Your task to perform on an android device: Open Youtube and go to "Your channel" Image 0: 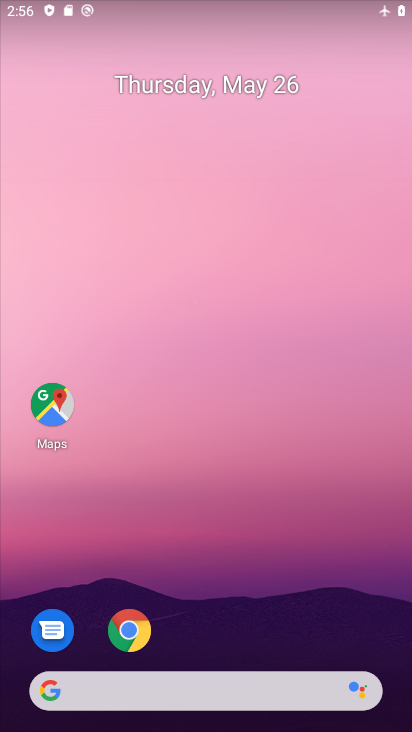
Step 0: drag from (235, 585) to (259, 244)
Your task to perform on an android device: Open Youtube and go to "Your channel" Image 1: 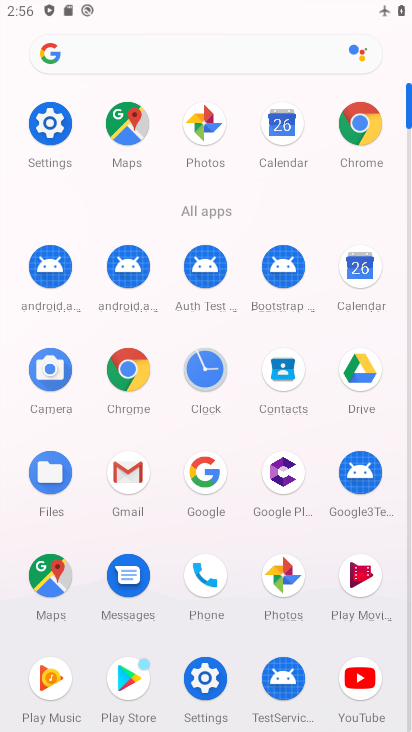
Step 1: click (361, 677)
Your task to perform on an android device: Open Youtube and go to "Your channel" Image 2: 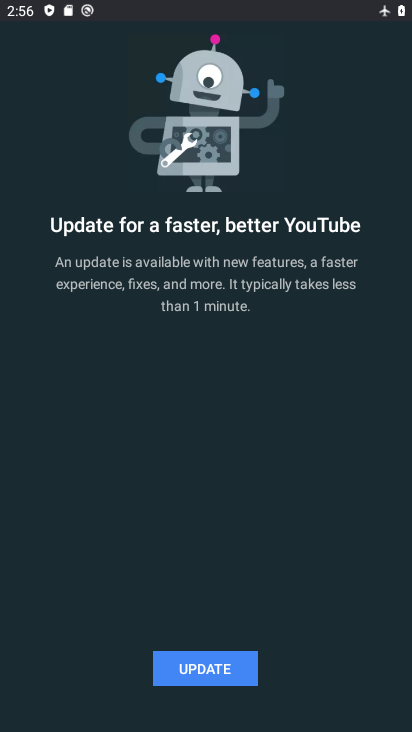
Step 2: click (239, 665)
Your task to perform on an android device: Open Youtube and go to "Your channel" Image 3: 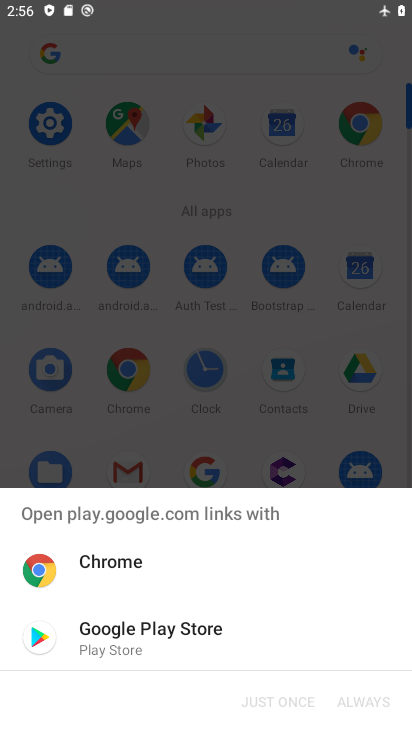
Step 3: click (159, 636)
Your task to perform on an android device: Open Youtube and go to "Your channel" Image 4: 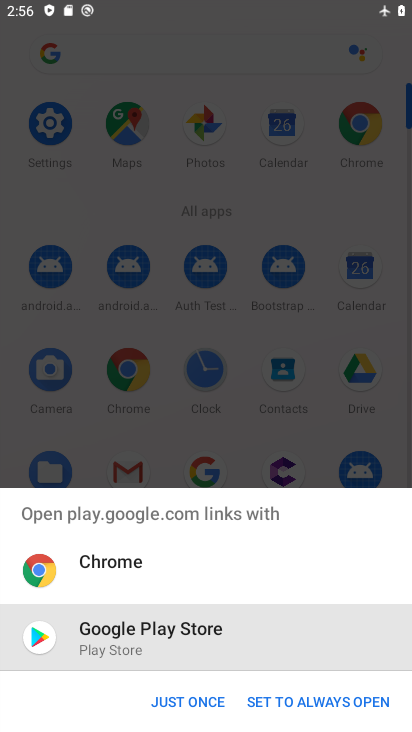
Step 4: click (185, 702)
Your task to perform on an android device: Open Youtube and go to "Your channel" Image 5: 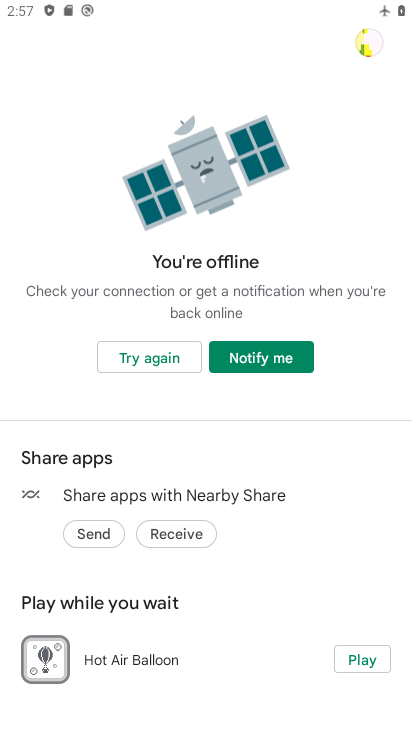
Step 5: click (162, 352)
Your task to perform on an android device: Open Youtube and go to "Your channel" Image 6: 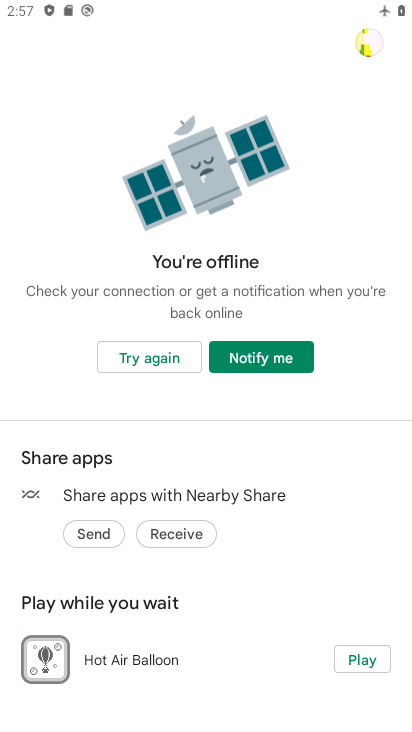
Step 6: task complete